Your task to perform on an android device: Go to Maps Image 0: 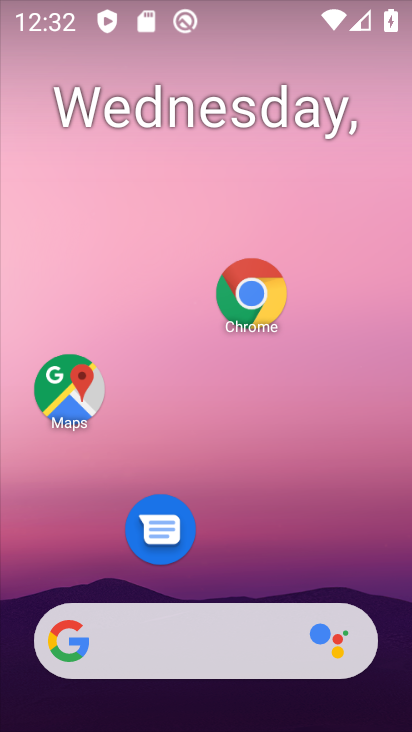
Step 0: drag from (213, 213) to (236, 70)
Your task to perform on an android device: Go to Maps Image 1: 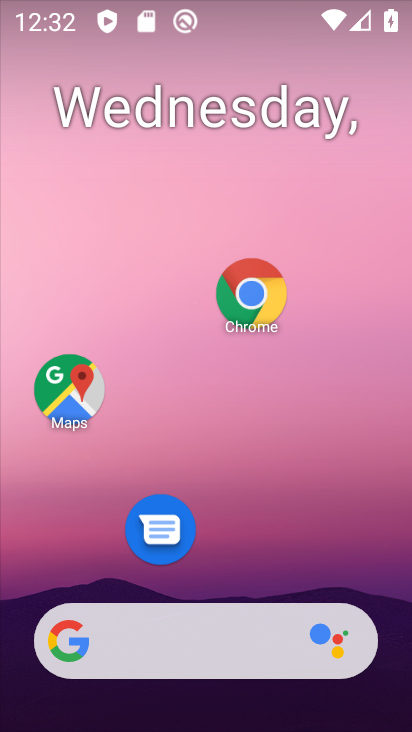
Step 1: click (86, 406)
Your task to perform on an android device: Go to Maps Image 2: 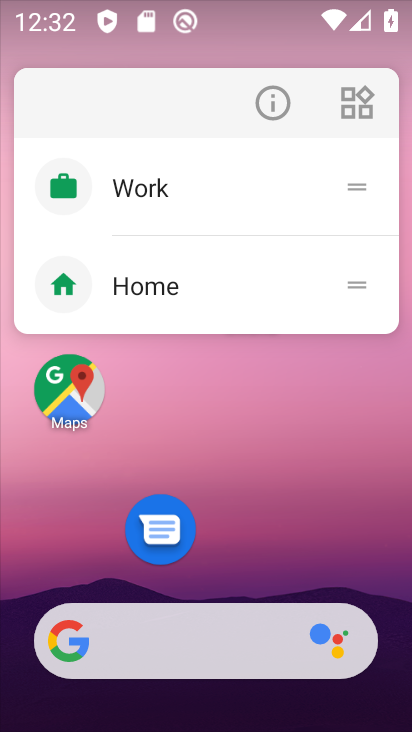
Step 2: click (86, 406)
Your task to perform on an android device: Go to Maps Image 3: 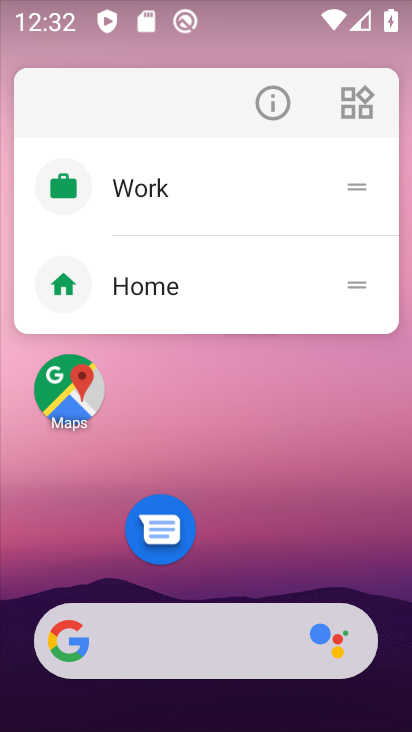
Step 3: click (86, 406)
Your task to perform on an android device: Go to Maps Image 4: 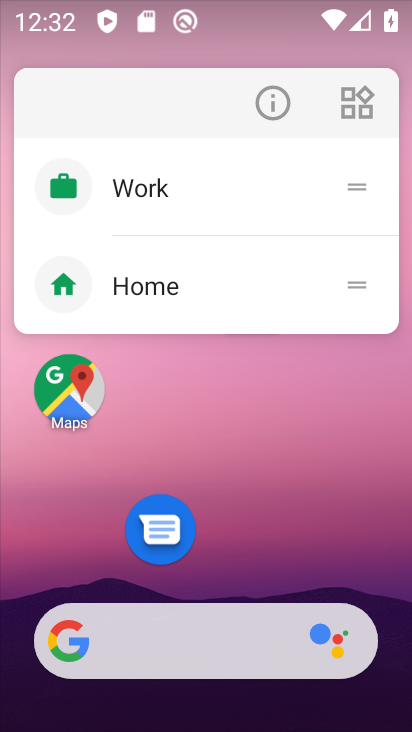
Step 4: click (64, 381)
Your task to perform on an android device: Go to Maps Image 5: 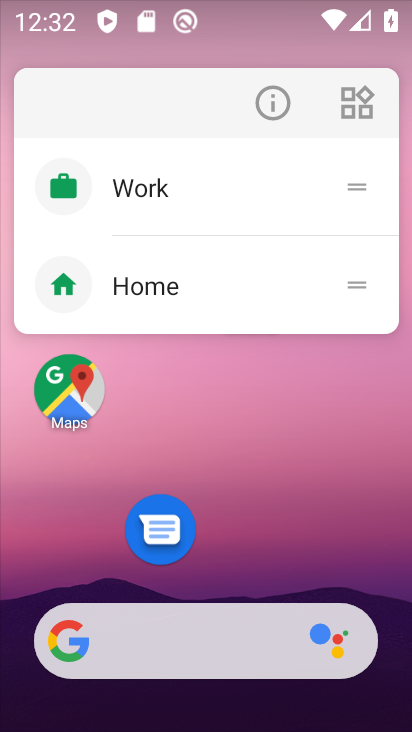
Step 5: click (38, 402)
Your task to perform on an android device: Go to Maps Image 6: 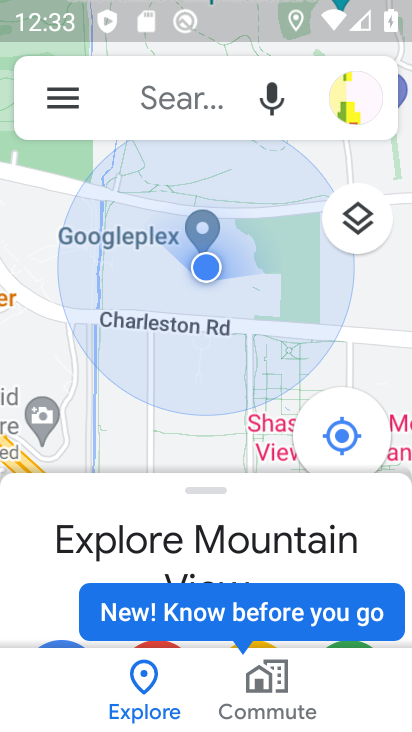
Step 6: task complete